Your task to perform on an android device: Search for pizza restaurants on Maps Image 0: 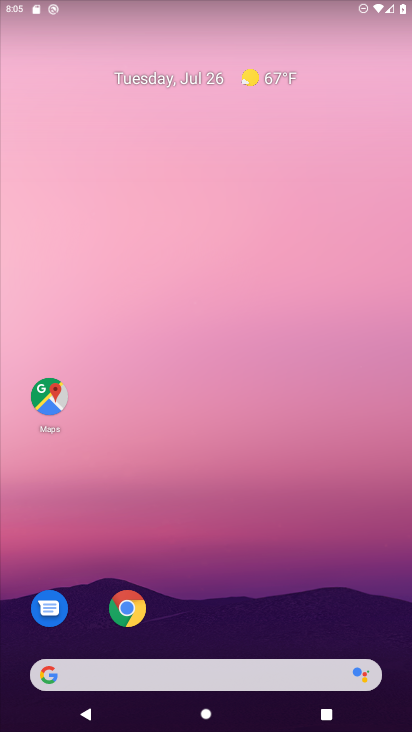
Step 0: click (48, 389)
Your task to perform on an android device: Search for pizza restaurants on Maps Image 1: 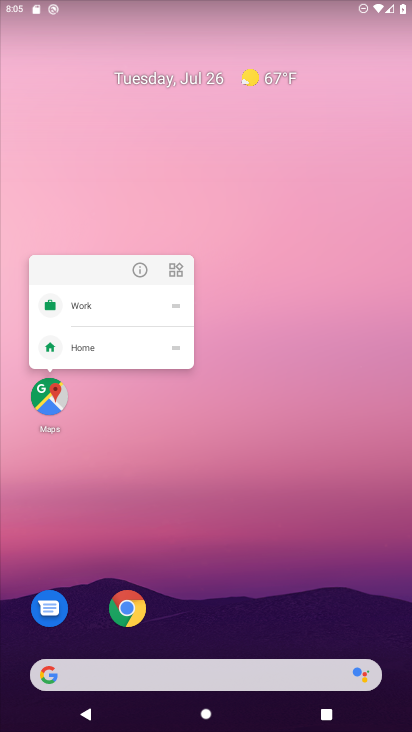
Step 1: click (48, 389)
Your task to perform on an android device: Search for pizza restaurants on Maps Image 2: 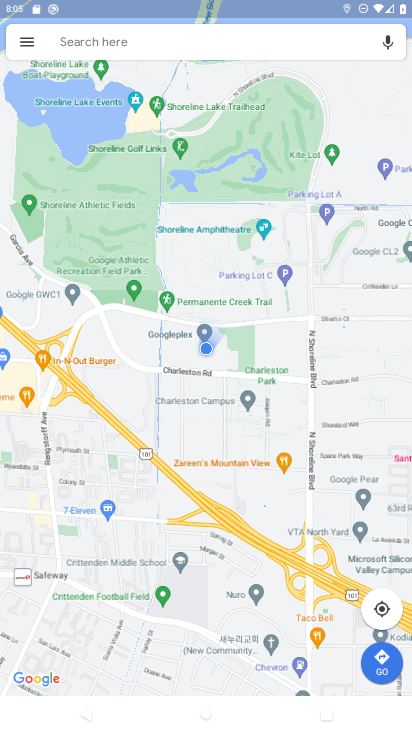
Step 2: click (187, 40)
Your task to perform on an android device: Search for pizza restaurants on Maps Image 3: 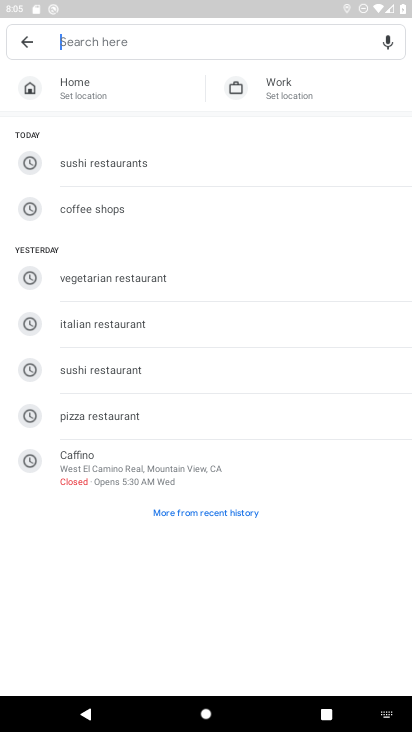
Step 3: type "pizza restaurants"
Your task to perform on an android device: Search for pizza restaurants on Maps Image 4: 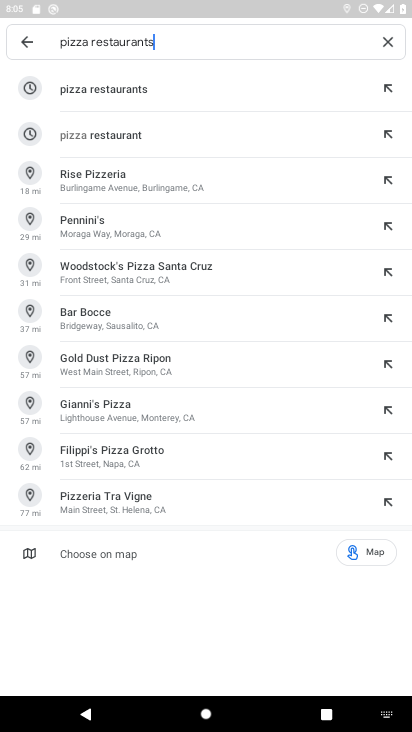
Step 4: click (165, 84)
Your task to perform on an android device: Search for pizza restaurants on Maps Image 5: 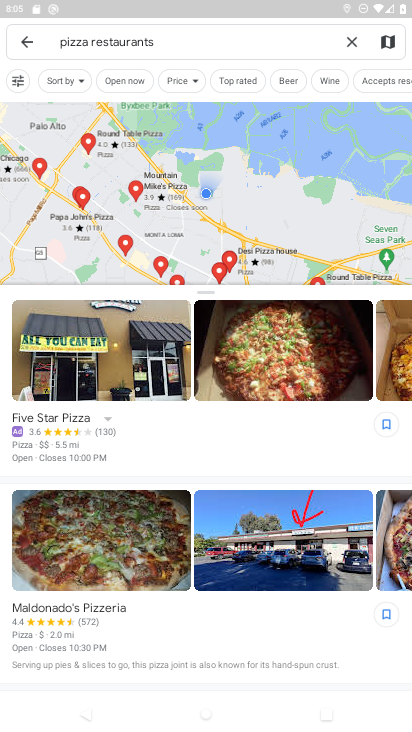
Step 5: task complete